Your task to perform on an android device: Open privacy settings Image 0: 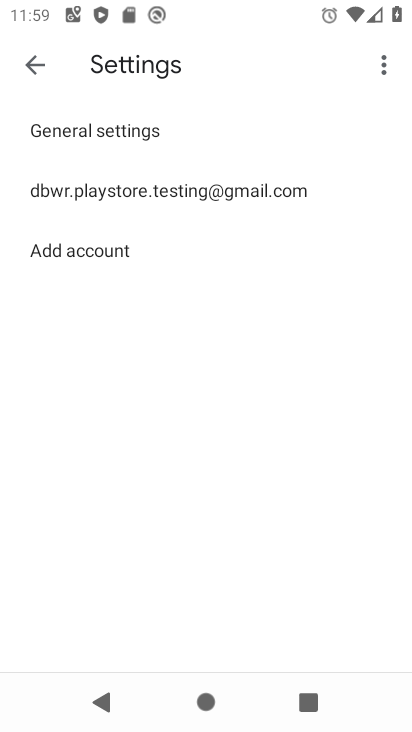
Step 0: press home button
Your task to perform on an android device: Open privacy settings Image 1: 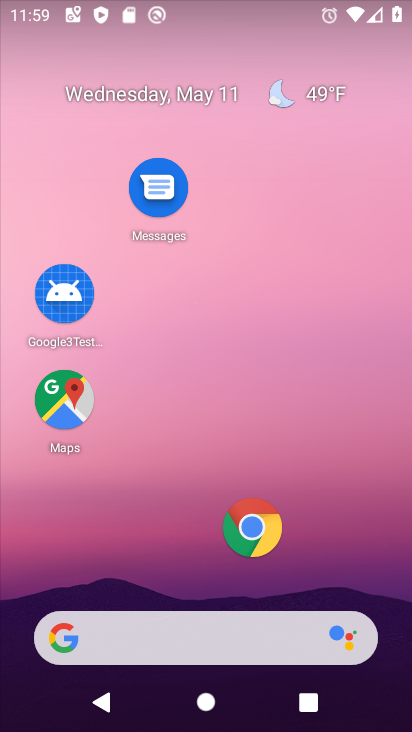
Step 1: drag from (196, 601) to (274, 1)
Your task to perform on an android device: Open privacy settings Image 2: 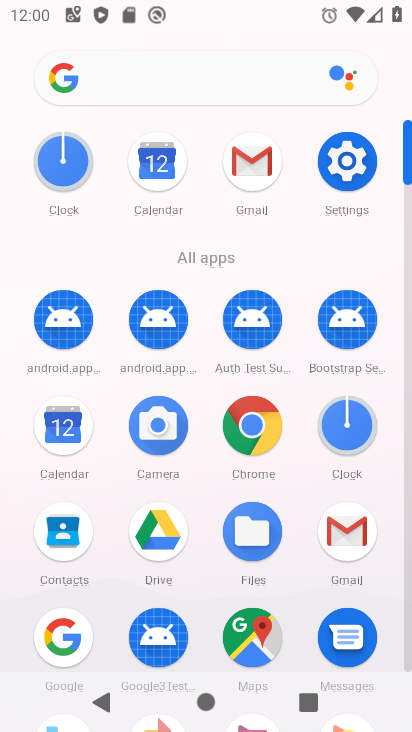
Step 2: click (339, 157)
Your task to perform on an android device: Open privacy settings Image 3: 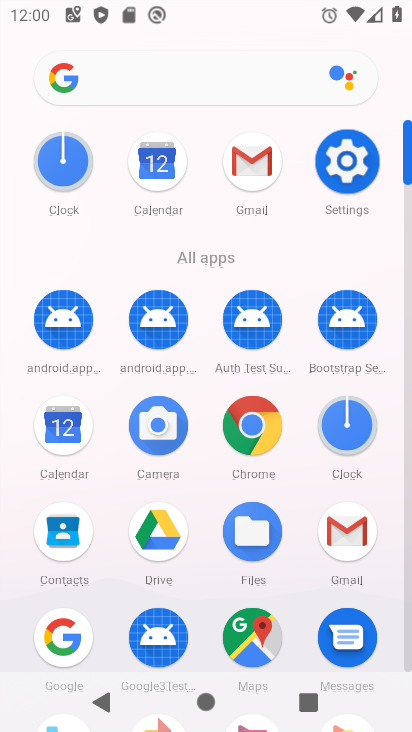
Step 3: click (339, 157)
Your task to perform on an android device: Open privacy settings Image 4: 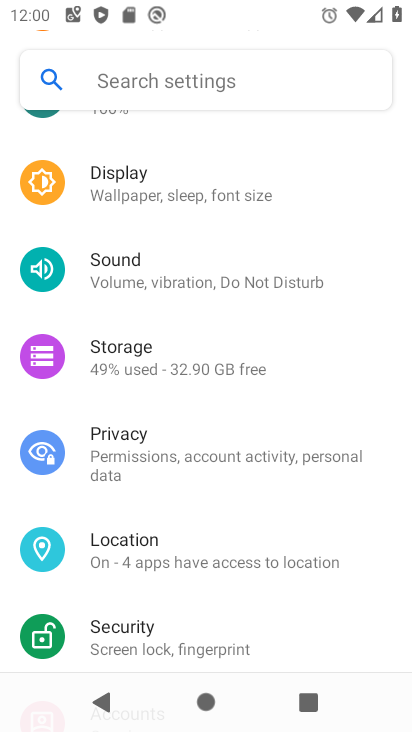
Step 4: click (132, 432)
Your task to perform on an android device: Open privacy settings Image 5: 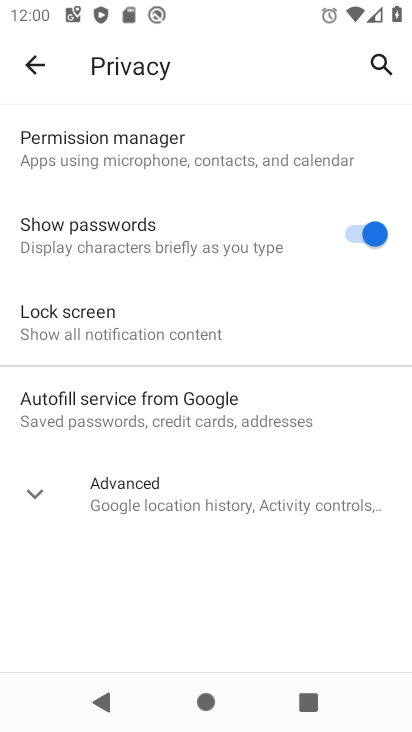
Step 5: task complete